Your task to perform on an android device: Go to sound settings Image 0: 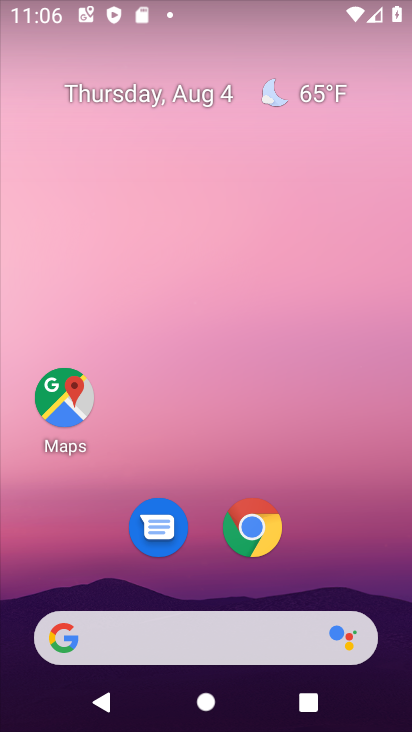
Step 0: drag from (142, 677) to (245, 14)
Your task to perform on an android device: Go to sound settings Image 1: 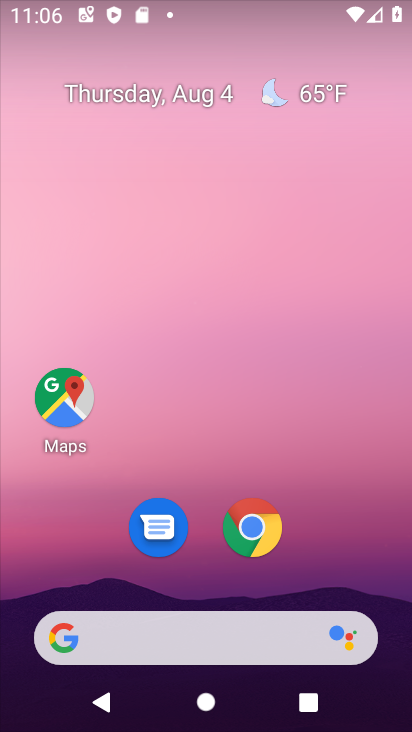
Step 1: drag from (275, 691) to (367, 50)
Your task to perform on an android device: Go to sound settings Image 2: 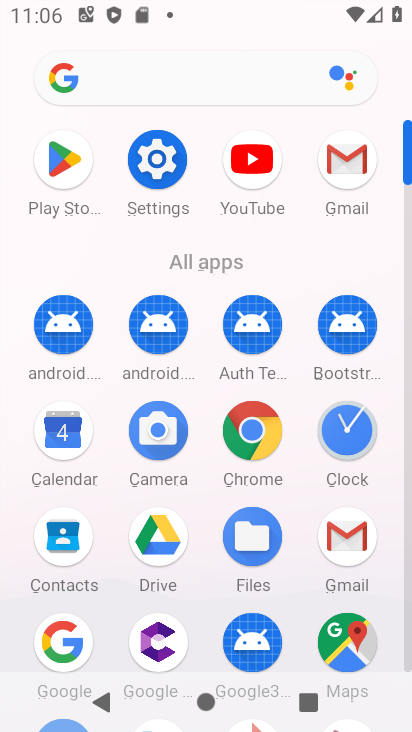
Step 2: click (176, 146)
Your task to perform on an android device: Go to sound settings Image 3: 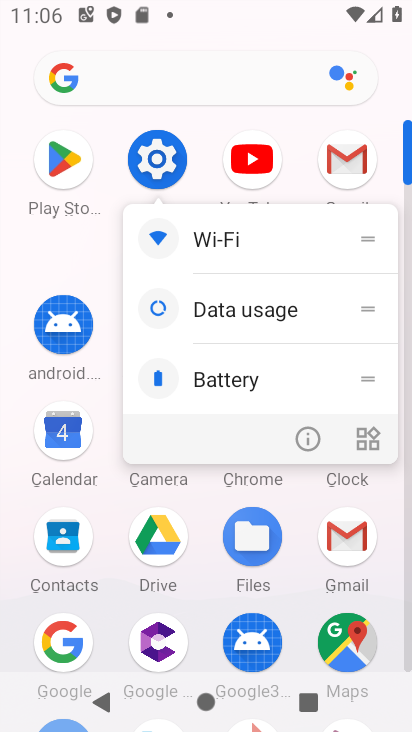
Step 3: click (176, 146)
Your task to perform on an android device: Go to sound settings Image 4: 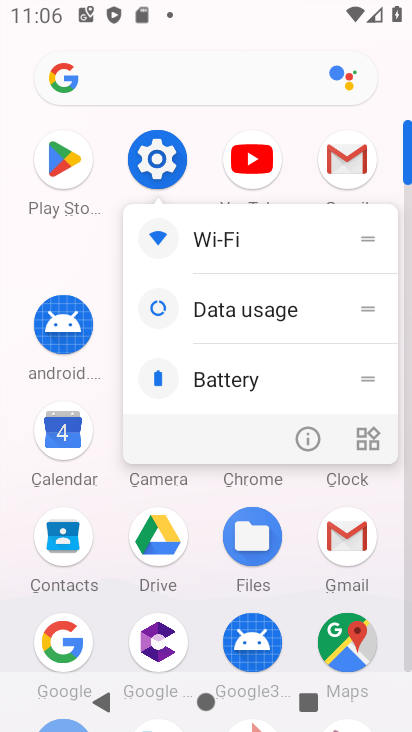
Step 4: click (141, 161)
Your task to perform on an android device: Go to sound settings Image 5: 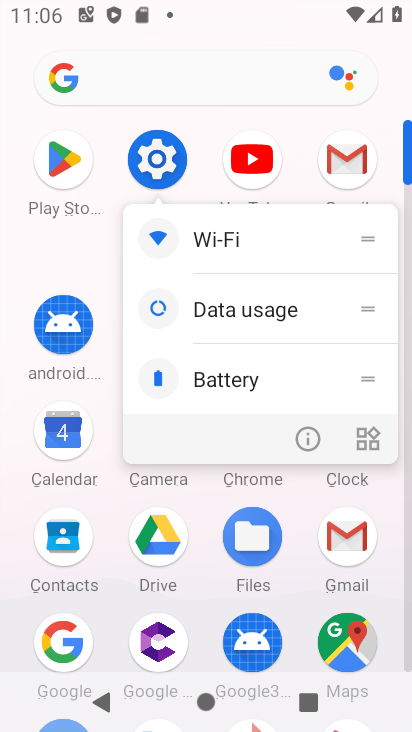
Step 5: click (141, 161)
Your task to perform on an android device: Go to sound settings Image 6: 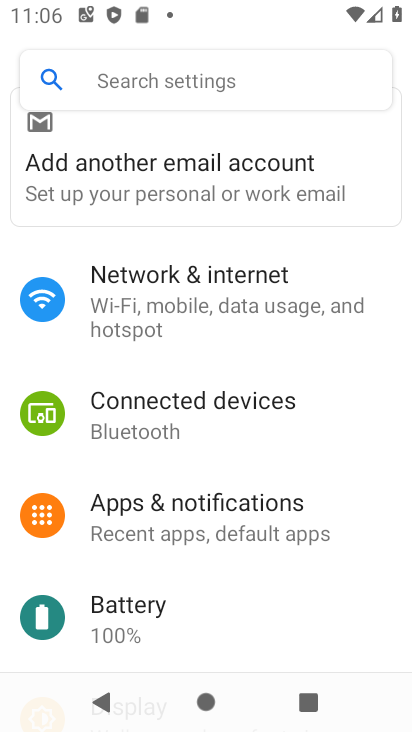
Step 6: click (162, 171)
Your task to perform on an android device: Go to sound settings Image 7: 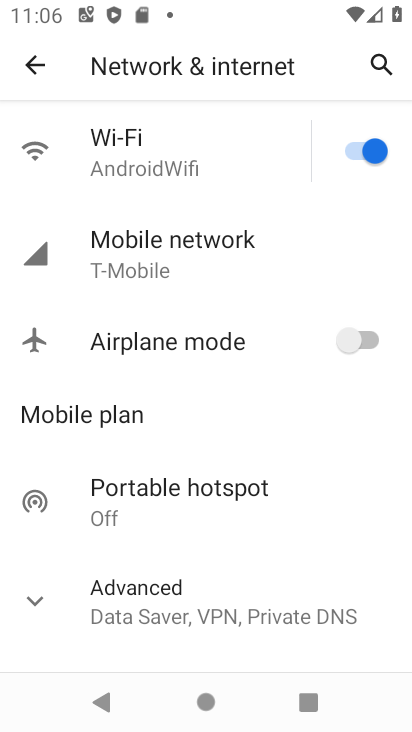
Step 7: click (33, 59)
Your task to perform on an android device: Go to sound settings Image 8: 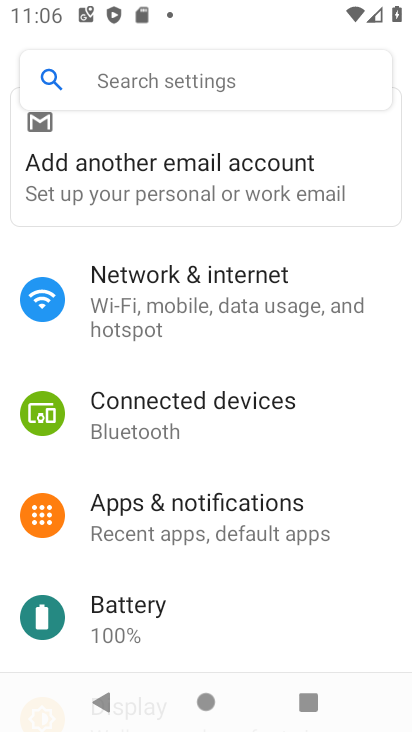
Step 8: drag from (240, 634) to (275, 121)
Your task to perform on an android device: Go to sound settings Image 9: 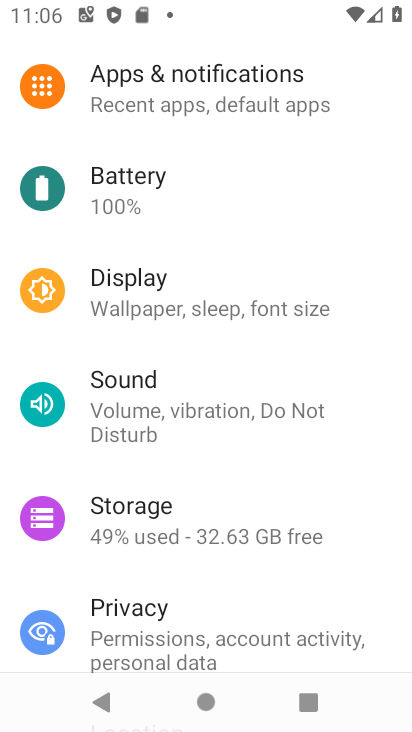
Step 9: click (259, 421)
Your task to perform on an android device: Go to sound settings Image 10: 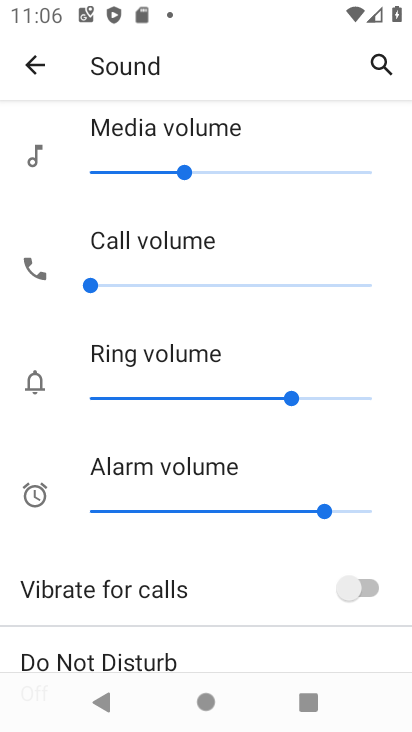
Step 10: task complete